Your task to perform on an android device: create a new album in the google photos Image 0: 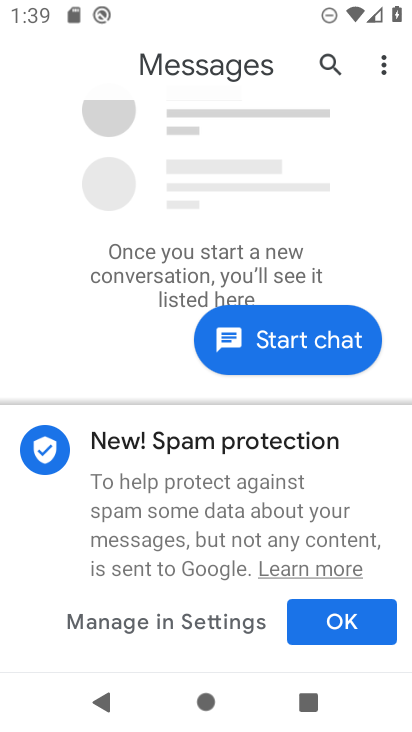
Step 0: press home button
Your task to perform on an android device: create a new album in the google photos Image 1: 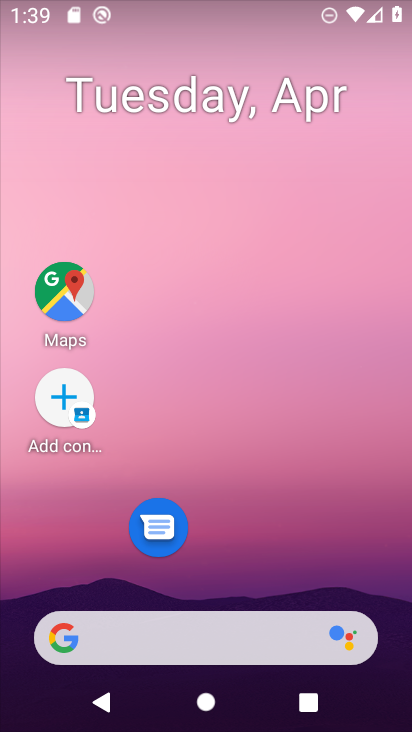
Step 1: drag from (270, 558) to (314, 58)
Your task to perform on an android device: create a new album in the google photos Image 2: 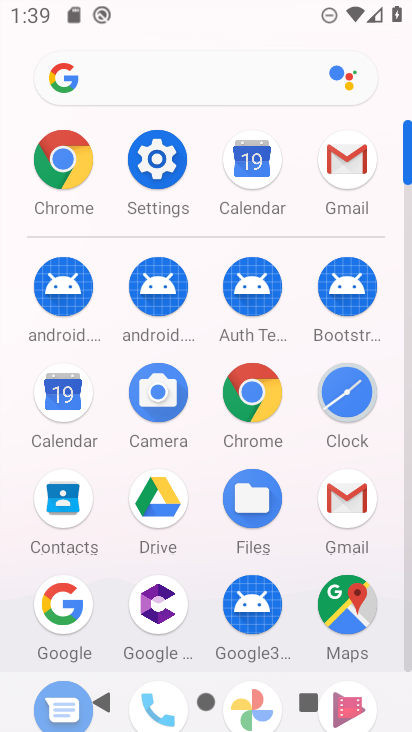
Step 2: drag from (200, 583) to (223, 296)
Your task to perform on an android device: create a new album in the google photos Image 3: 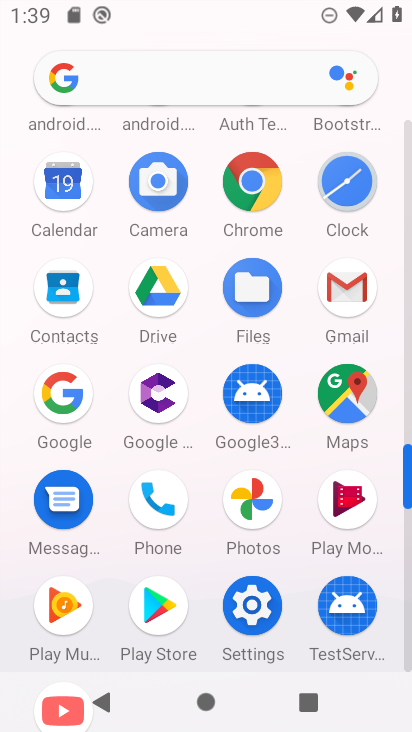
Step 3: click (254, 503)
Your task to perform on an android device: create a new album in the google photos Image 4: 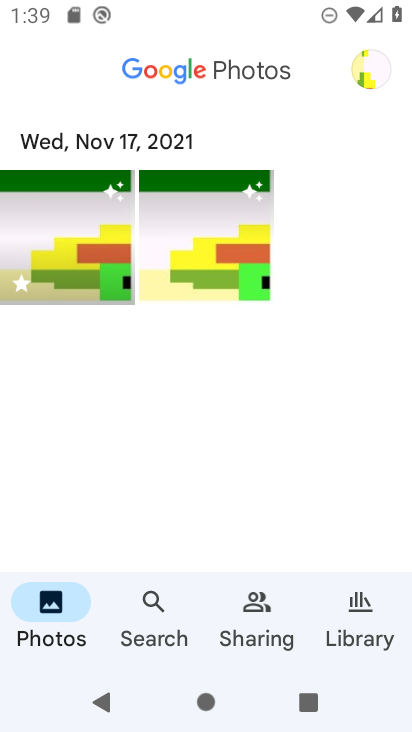
Step 4: click (357, 608)
Your task to perform on an android device: create a new album in the google photos Image 5: 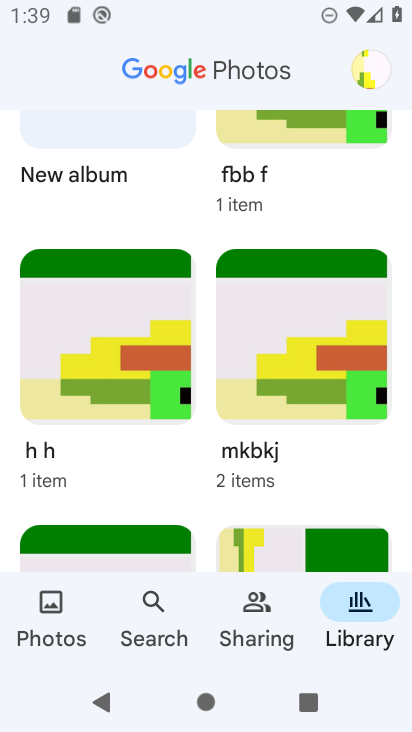
Step 5: drag from (170, 251) to (177, 533)
Your task to perform on an android device: create a new album in the google photos Image 6: 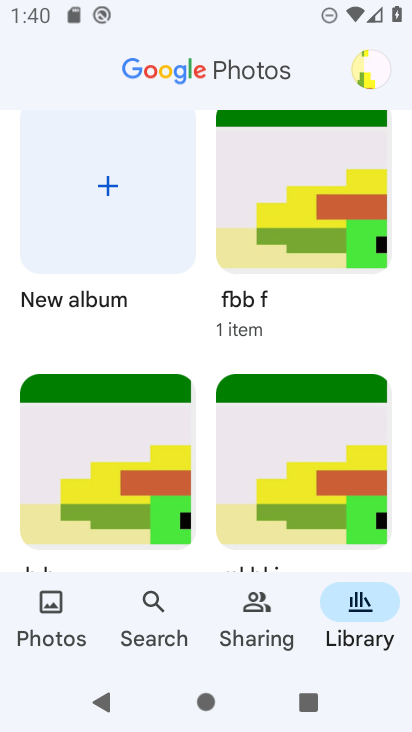
Step 6: click (105, 187)
Your task to perform on an android device: create a new album in the google photos Image 7: 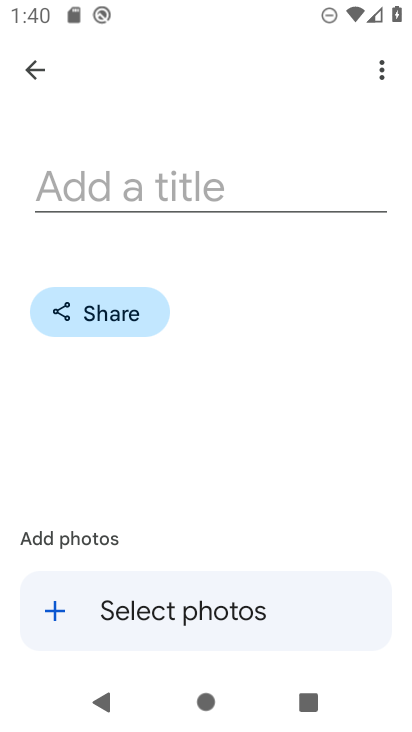
Step 7: click (239, 190)
Your task to perform on an android device: create a new album in the google photos Image 8: 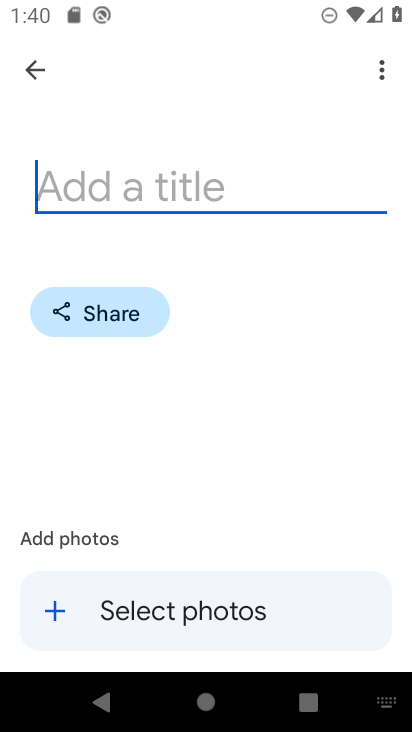
Step 8: type "Lily"
Your task to perform on an android device: create a new album in the google photos Image 9: 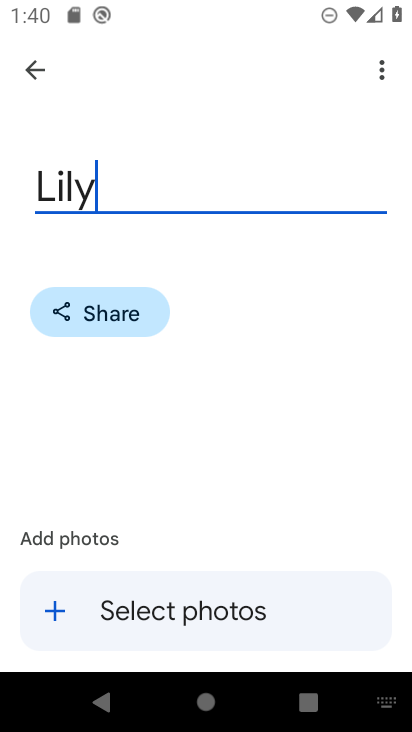
Step 9: click (166, 608)
Your task to perform on an android device: create a new album in the google photos Image 10: 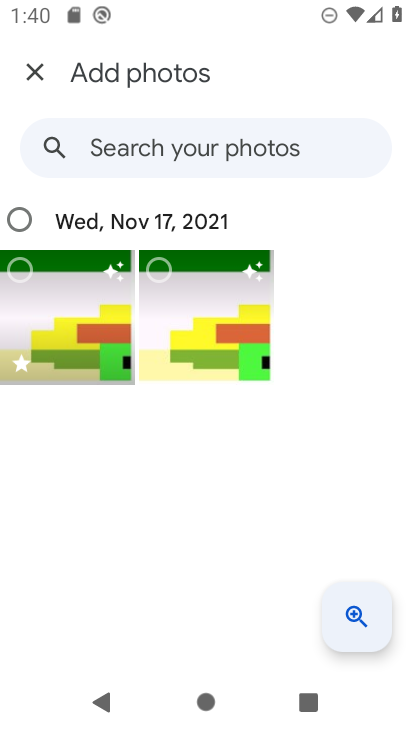
Step 10: click (30, 274)
Your task to perform on an android device: create a new album in the google photos Image 11: 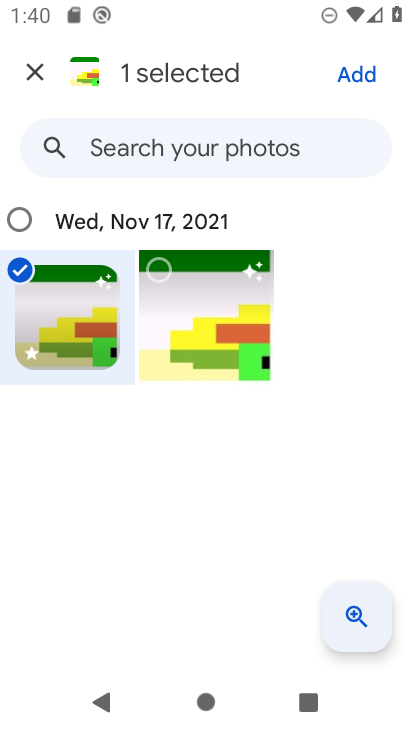
Step 11: click (351, 72)
Your task to perform on an android device: create a new album in the google photos Image 12: 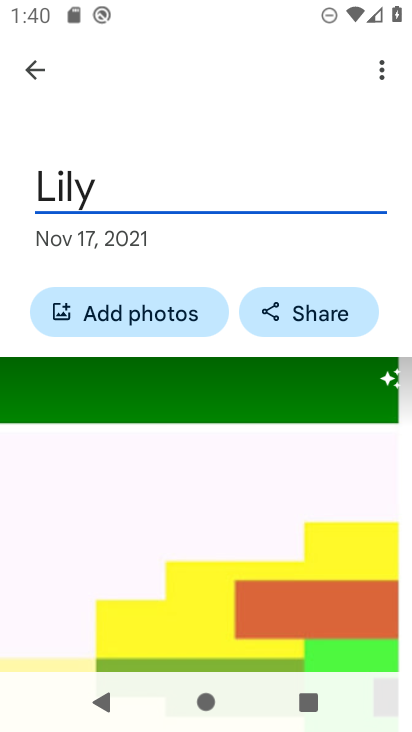
Step 12: task complete